Your task to perform on an android device: Go to network settings Image 0: 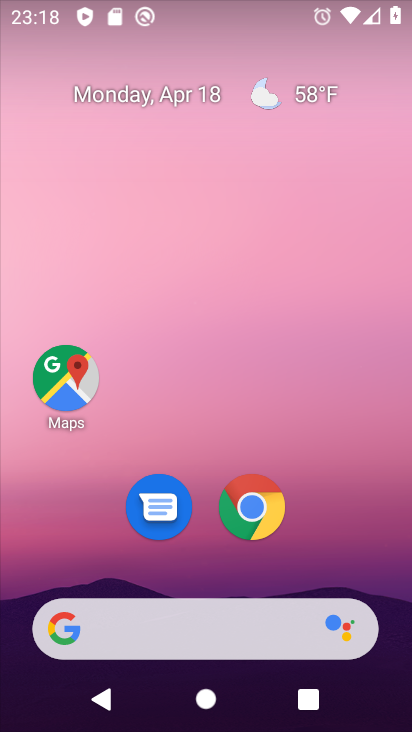
Step 0: drag from (241, 14) to (270, 576)
Your task to perform on an android device: Go to network settings Image 1: 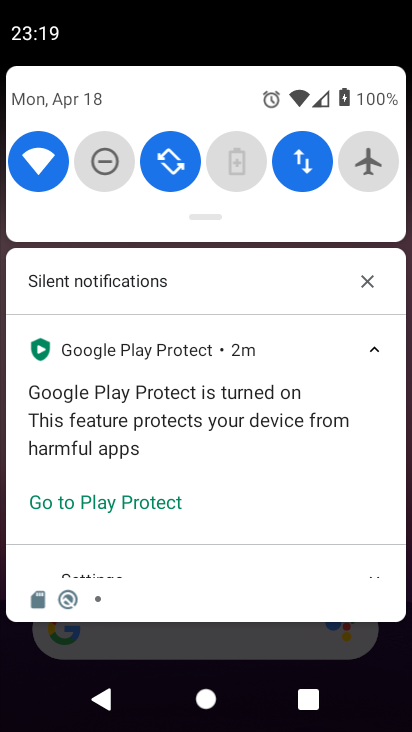
Step 1: drag from (201, 102) to (208, 698)
Your task to perform on an android device: Go to network settings Image 2: 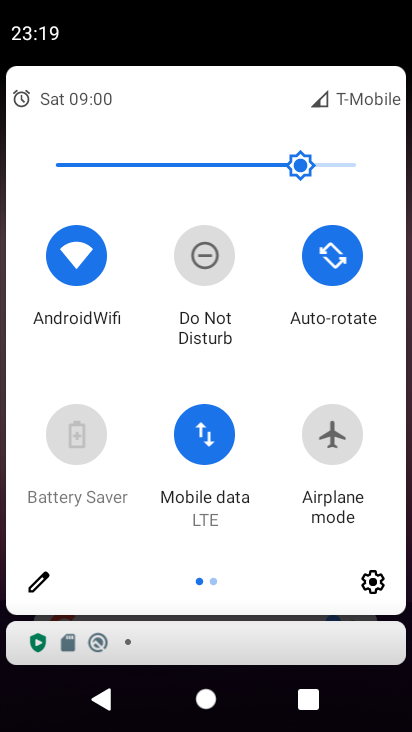
Step 2: click (371, 587)
Your task to perform on an android device: Go to network settings Image 3: 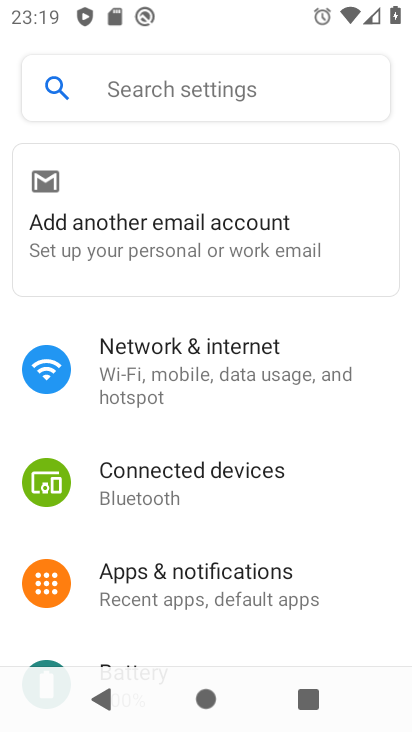
Step 3: click (238, 373)
Your task to perform on an android device: Go to network settings Image 4: 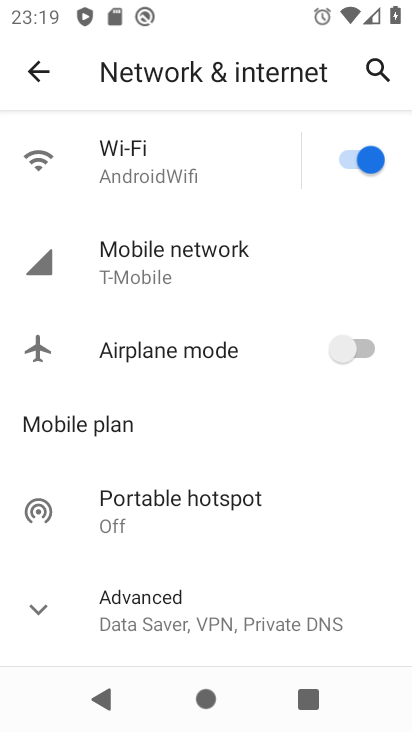
Step 4: task complete